Your task to perform on an android device: check out phone information Image 0: 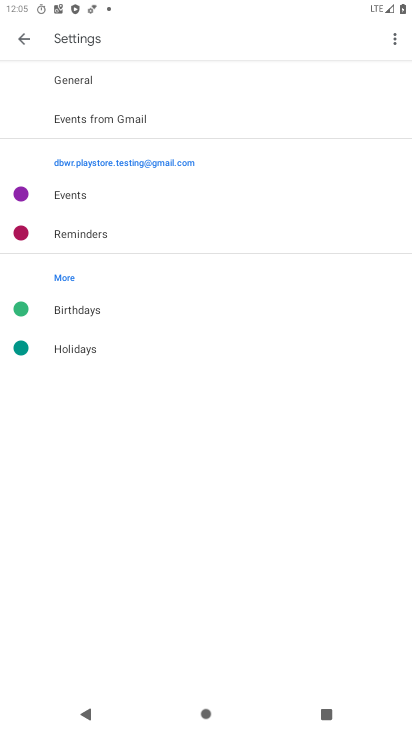
Step 0: press home button
Your task to perform on an android device: check out phone information Image 1: 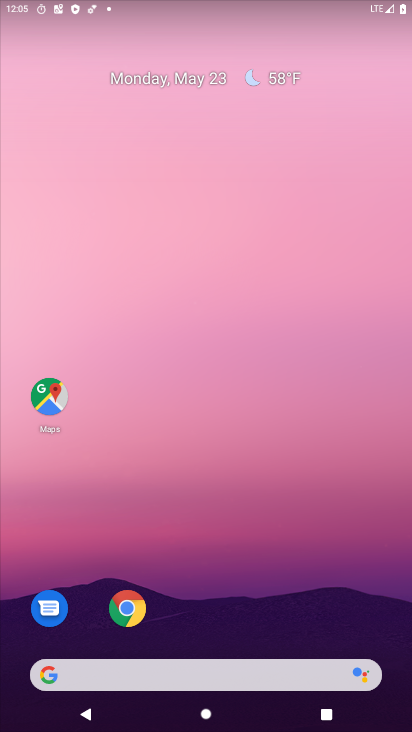
Step 1: drag from (260, 609) to (209, 131)
Your task to perform on an android device: check out phone information Image 2: 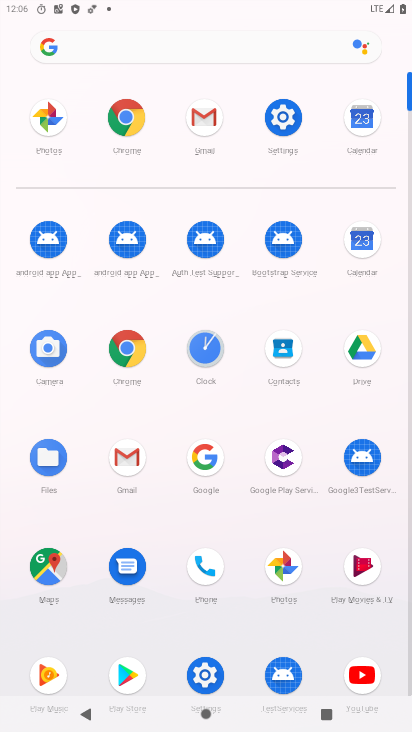
Step 2: click (276, 109)
Your task to perform on an android device: check out phone information Image 3: 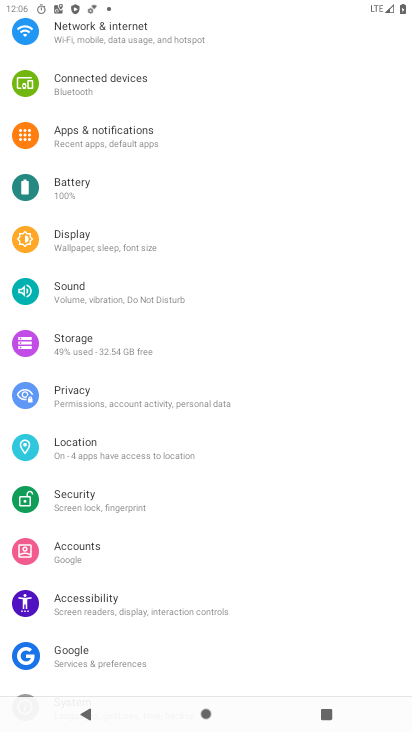
Step 3: drag from (240, 641) to (205, 183)
Your task to perform on an android device: check out phone information Image 4: 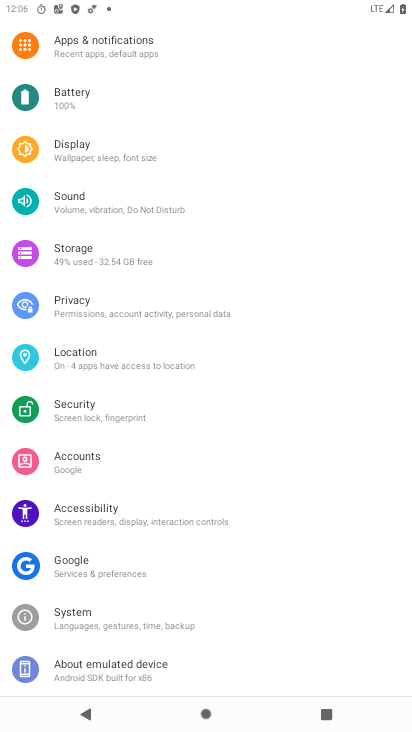
Step 4: click (148, 652)
Your task to perform on an android device: check out phone information Image 5: 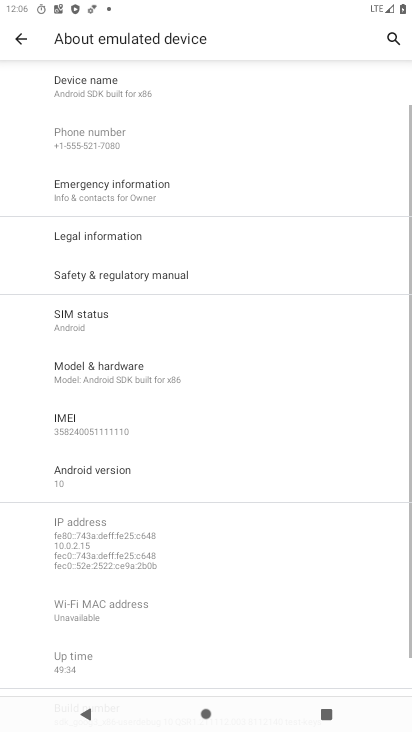
Step 5: task complete